Your task to perform on an android device: check data usage Image 0: 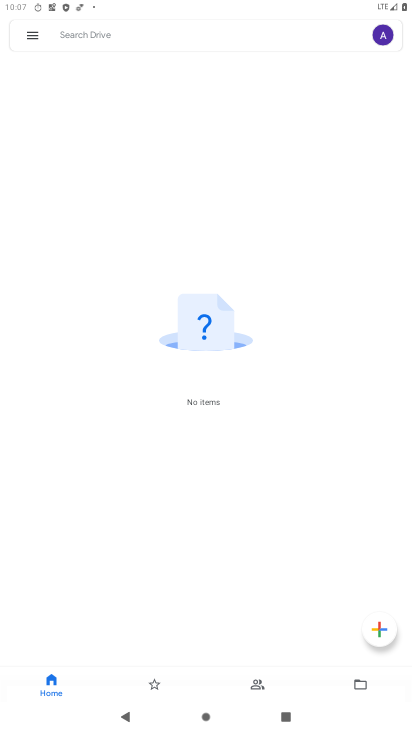
Step 0: press home button
Your task to perform on an android device: check data usage Image 1: 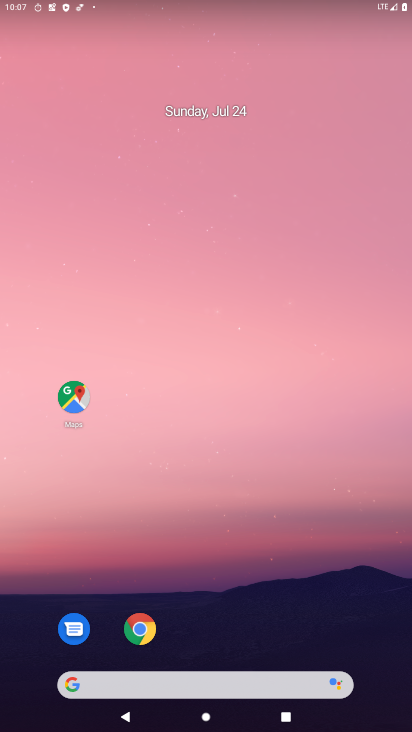
Step 1: drag from (251, 615) to (242, 0)
Your task to perform on an android device: check data usage Image 2: 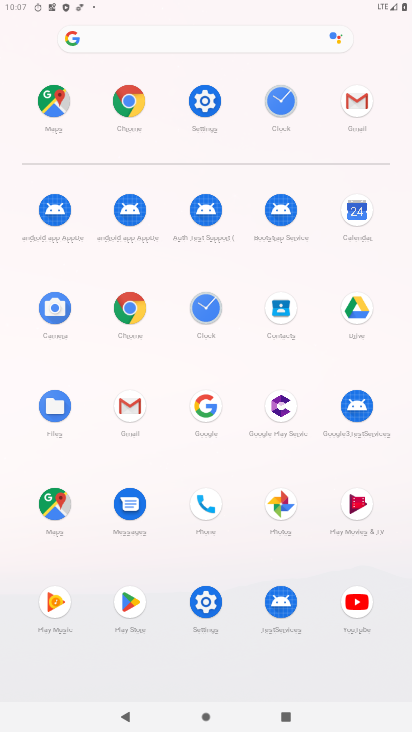
Step 2: click (208, 95)
Your task to perform on an android device: check data usage Image 3: 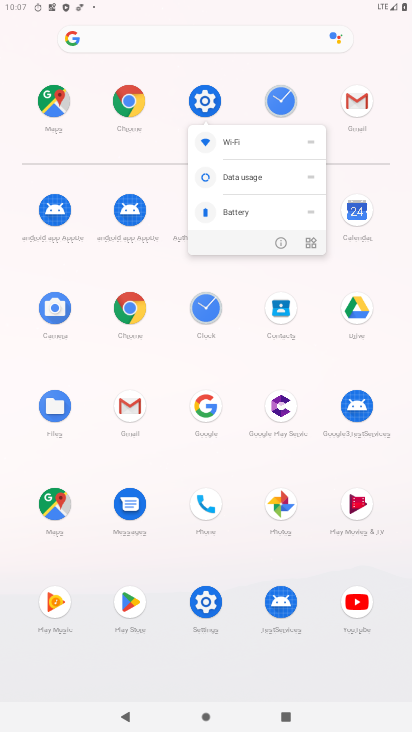
Step 3: click (204, 97)
Your task to perform on an android device: check data usage Image 4: 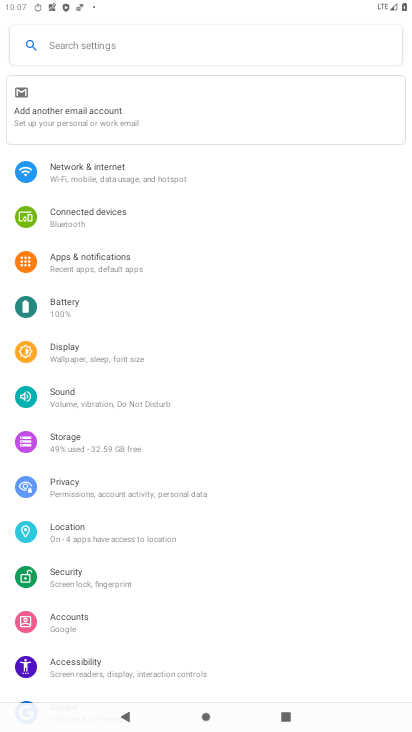
Step 4: click (114, 179)
Your task to perform on an android device: check data usage Image 5: 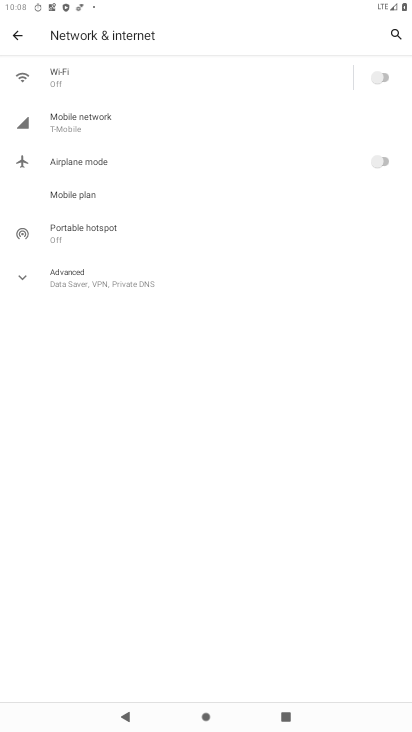
Step 5: click (104, 120)
Your task to perform on an android device: check data usage Image 6: 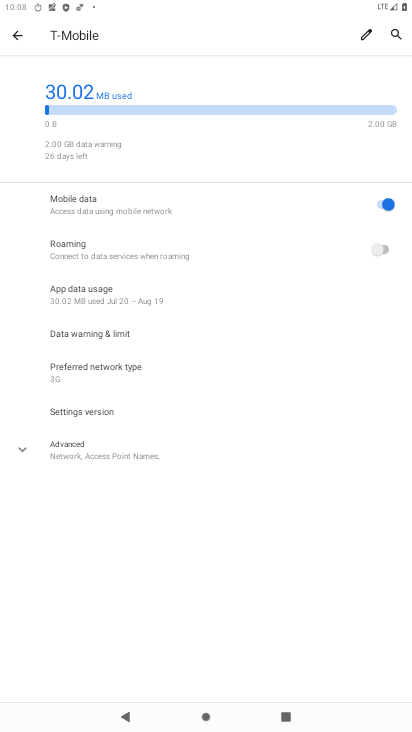
Step 6: task complete